Your task to perform on an android device: toggle show notifications on the lock screen Image 0: 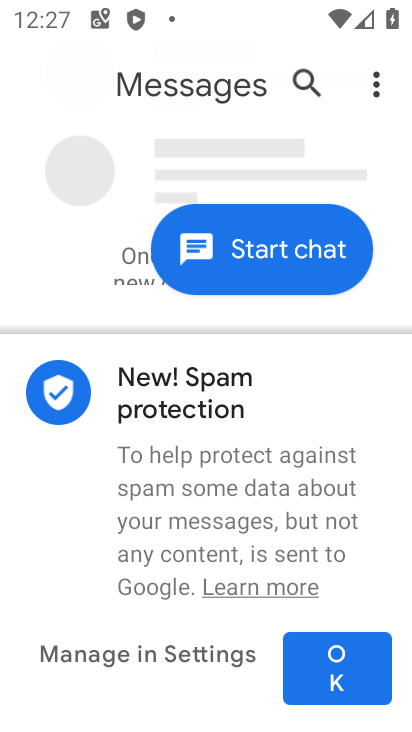
Step 0: press home button
Your task to perform on an android device: toggle show notifications on the lock screen Image 1: 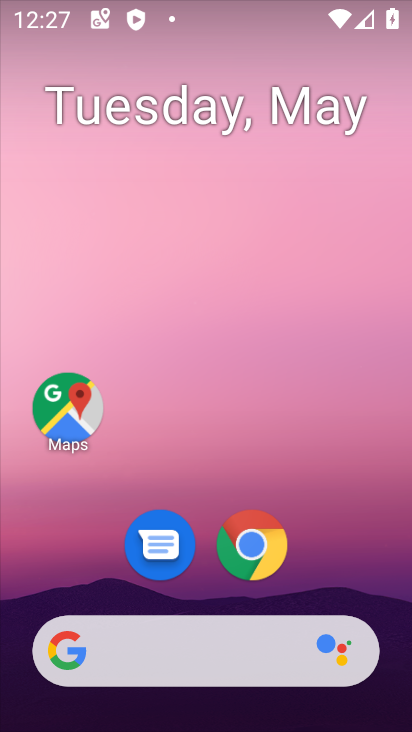
Step 1: drag from (213, 596) to (265, 0)
Your task to perform on an android device: toggle show notifications on the lock screen Image 2: 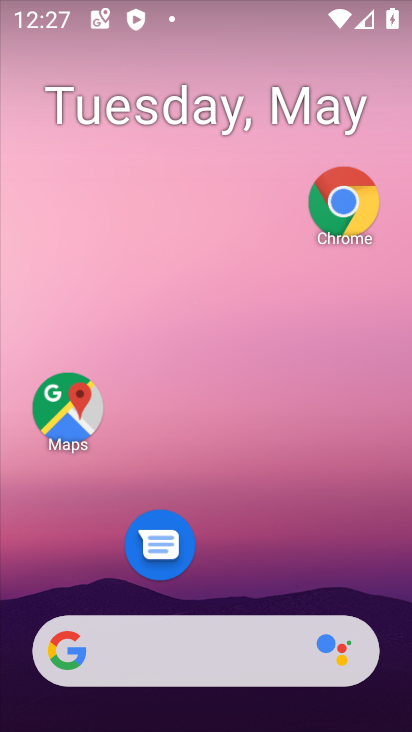
Step 2: drag from (203, 596) to (183, 40)
Your task to perform on an android device: toggle show notifications on the lock screen Image 3: 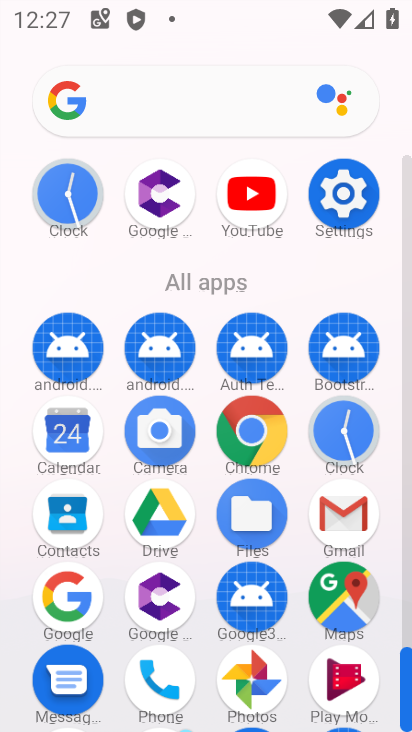
Step 3: click (342, 205)
Your task to perform on an android device: toggle show notifications on the lock screen Image 4: 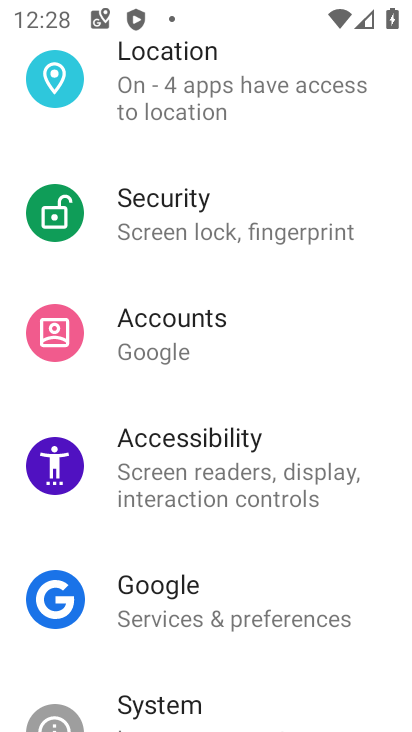
Step 4: drag from (113, 668) to (189, 265)
Your task to perform on an android device: toggle show notifications on the lock screen Image 5: 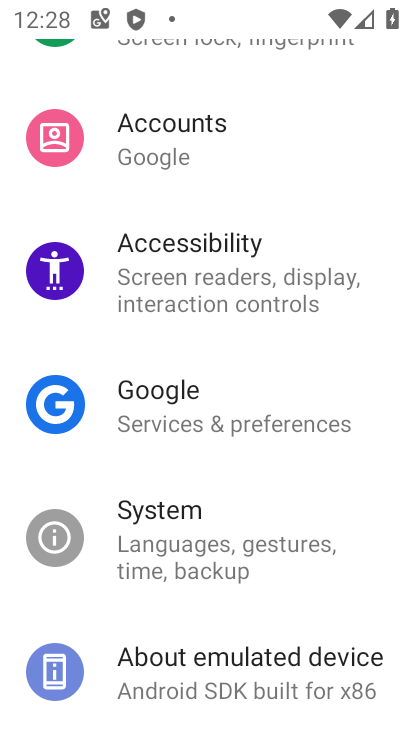
Step 5: drag from (223, 183) to (278, 563)
Your task to perform on an android device: toggle show notifications on the lock screen Image 6: 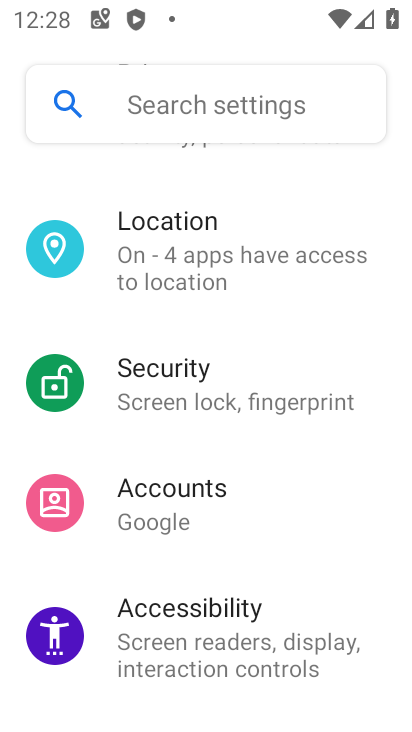
Step 6: drag from (161, 174) to (189, 447)
Your task to perform on an android device: toggle show notifications on the lock screen Image 7: 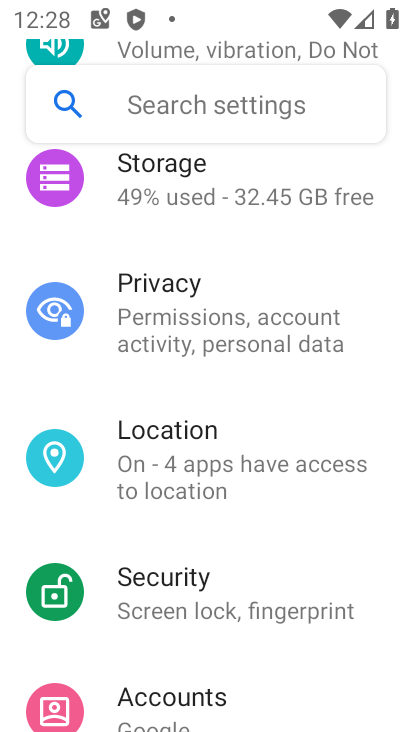
Step 7: drag from (133, 246) to (146, 453)
Your task to perform on an android device: toggle show notifications on the lock screen Image 8: 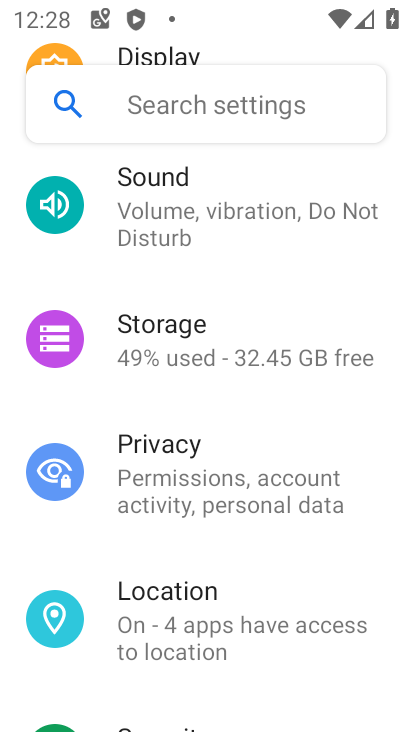
Step 8: drag from (198, 562) to (191, 597)
Your task to perform on an android device: toggle show notifications on the lock screen Image 9: 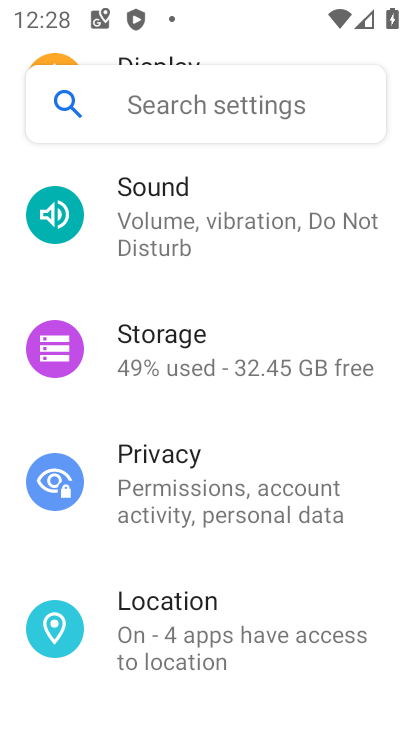
Step 9: drag from (258, 189) to (288, 603)
Your task to perform on an android device: toggle show notifications on the lock screen Image 10: 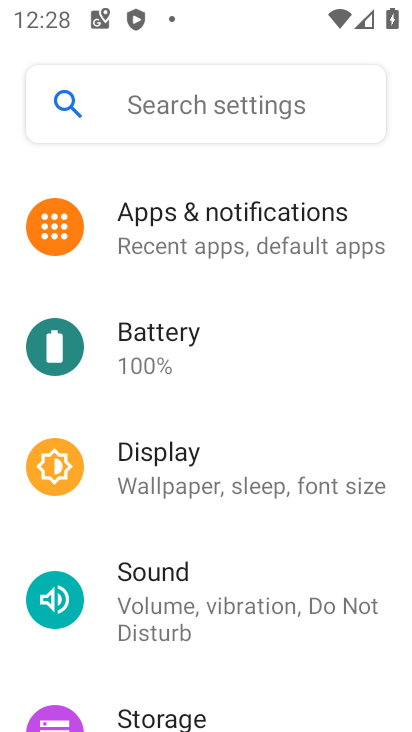
Step 10: click (299, 228)
Your task to perform on an android device: toggle show notifications on the lock screen Image 11: 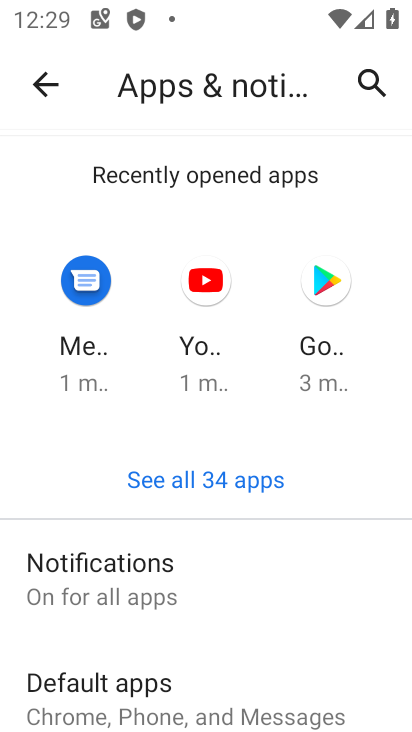
Step 11: drag from (145, 645) to (204, 227)
Your task to perform on an android device: toggle show notifications on the lock screen Image 12: 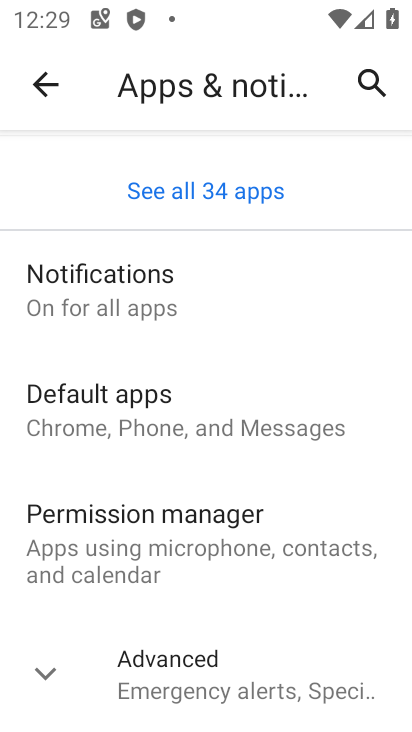
Step 12: click (127, 551)
Your task to perform on an android device: toggle show notifications on the lock screen Image 13: 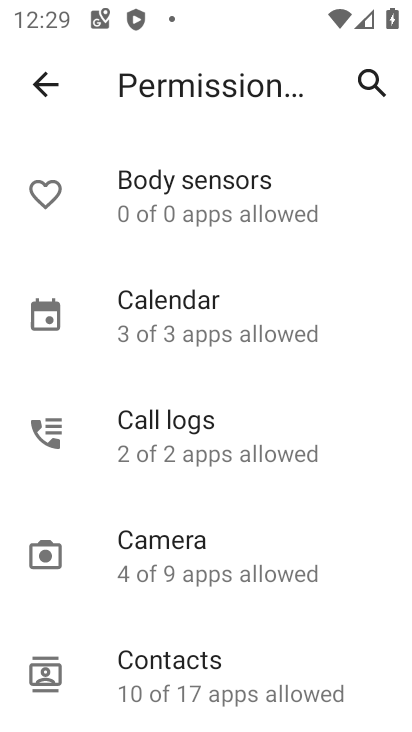
Step 13: click (54, 89)
Your task to perform on an android device: toggle show notifications on the lock screen Image 14: 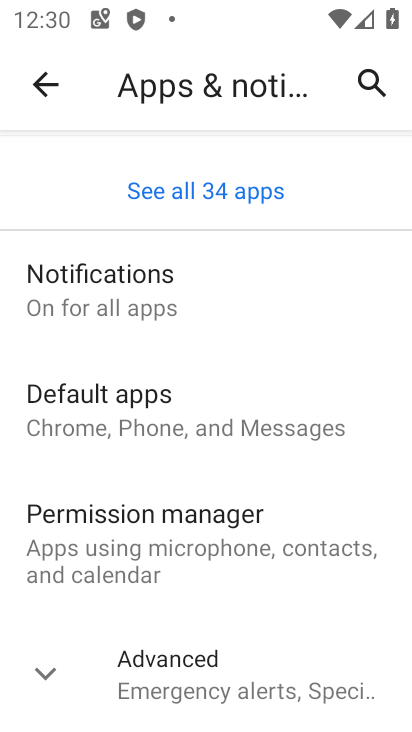
Step 14: click (210, 293)
Your task to perform on an android device: toggle show notifications on the lock screen Image 15: 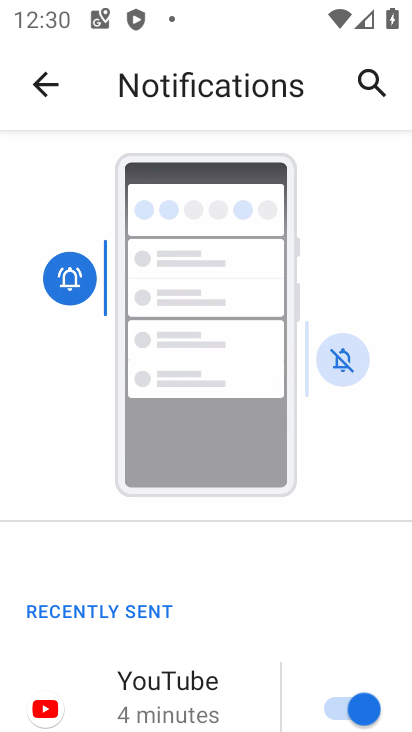
Step 15: drag from (158, 678) to (220, 204)
Your task to perform on an android device: toggle show notifications on the lock screen Image 16: 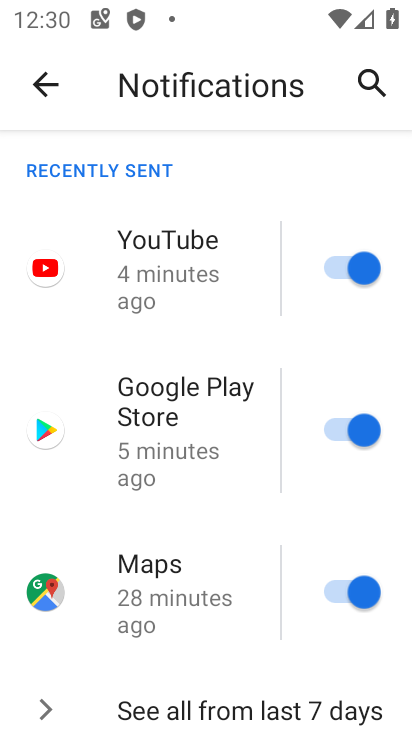
Step 16: drag from (100, 637) to (187, 267)
Your task to perform on an android device: toggle show notifications on the lock screen Image 17: 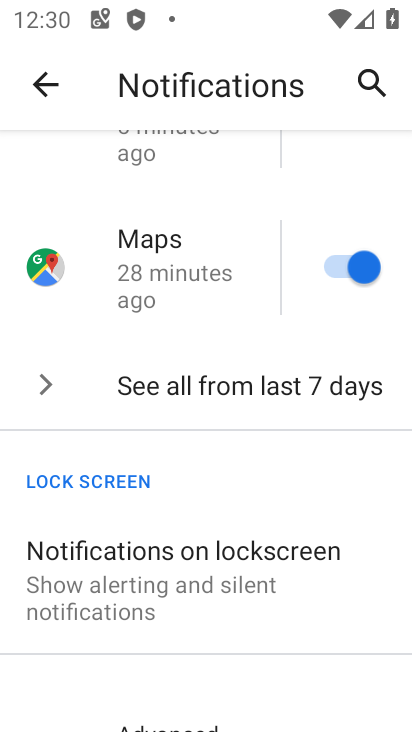
Step 17: click (243, 590)
Your task to perform on an android device: toggle show notifications on the lock screen Image 18: 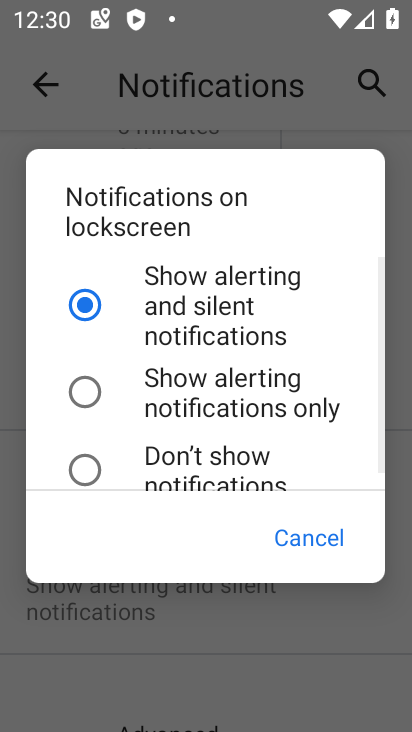
Step 18: click (155, 408)
Your task to perform on an android device: toggle show notifications on the lock screen Image 19: 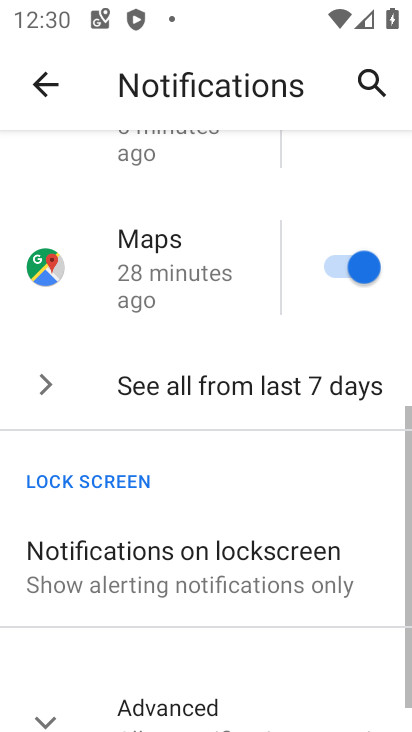
Step 19: task complete